Your task to perform on an android device: Open notification settings Image 0: 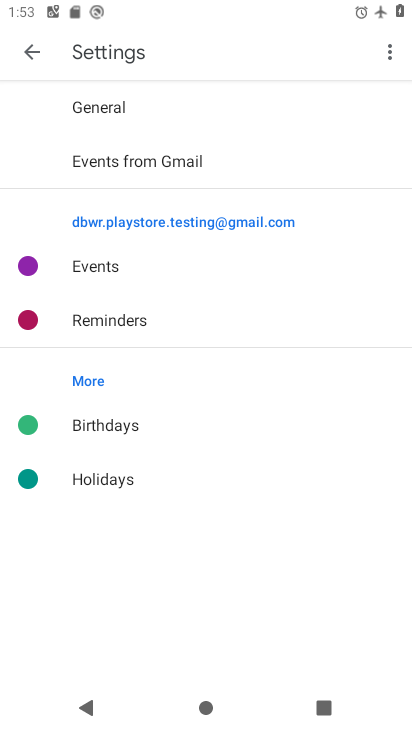
Step 0: press home button
Your task to perform on an android device: Open notification settings Image 1: 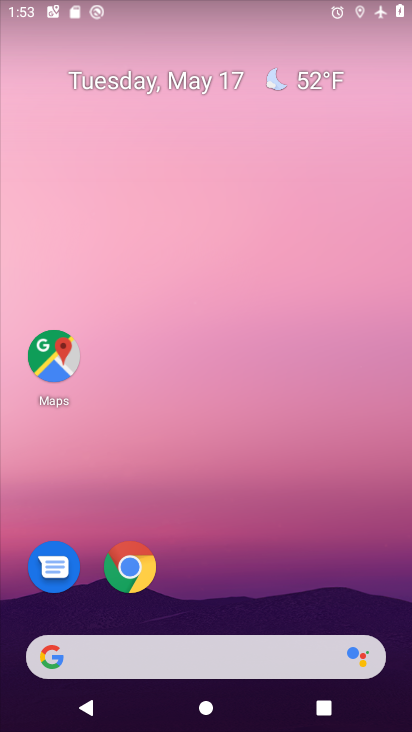
Step 1: click (284, 58)
Your task to perform on an android device: Open notification settings Image 2: 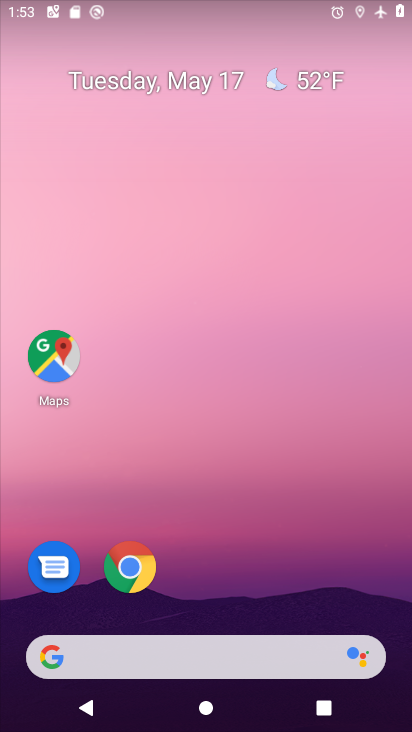
Step 2: drag from (234, 542) to (292, 172)
Your task to perform on an android device: Open notification settings Image 3: 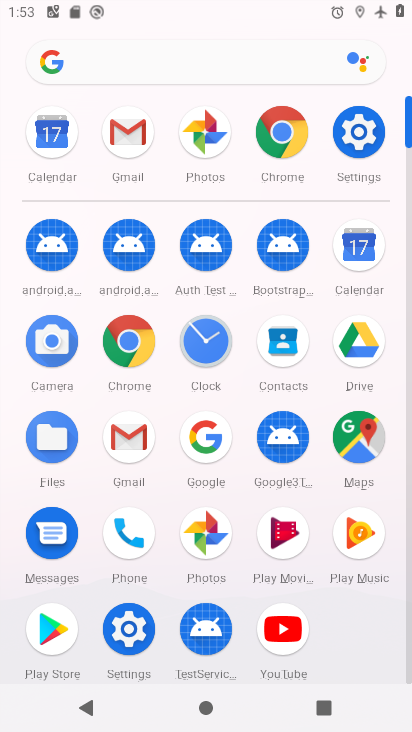
Step 3: click (355, 137)
Your task to perform on an android device: Open notification settings Image 4: 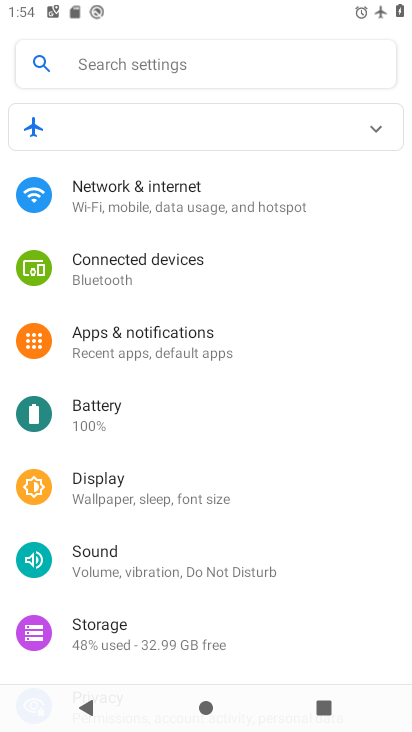
Step 4: click (138, 345)
Your task to perform on an android device: Open notification settings Image 5: 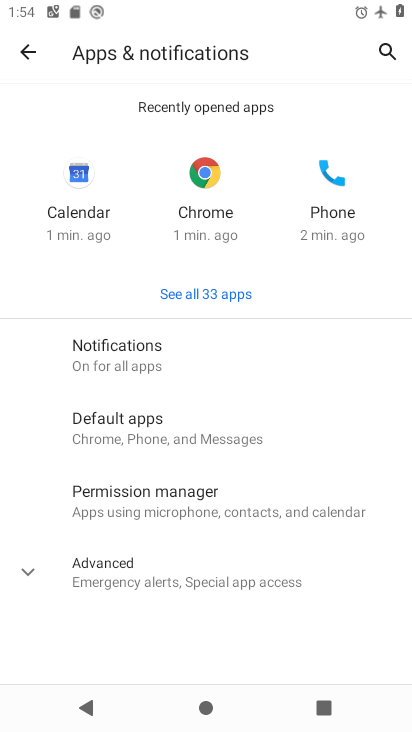
Step 5: click (140, 356)
Your task to perform on an android device: Open notification settings Image 6: 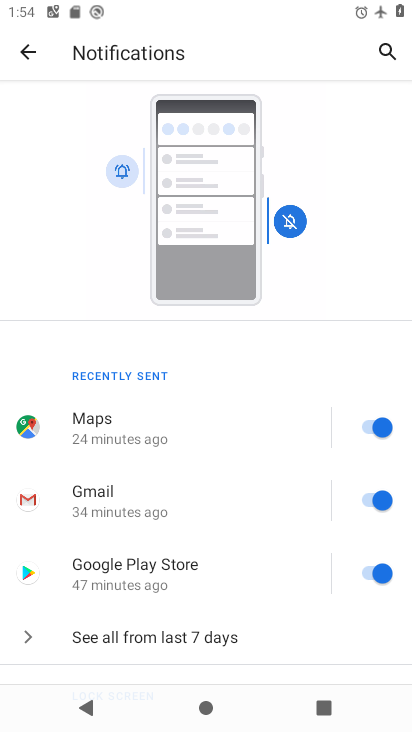
Step 6: task complete